Your task to perform on an android device: Go to Reddit.com Image 0: 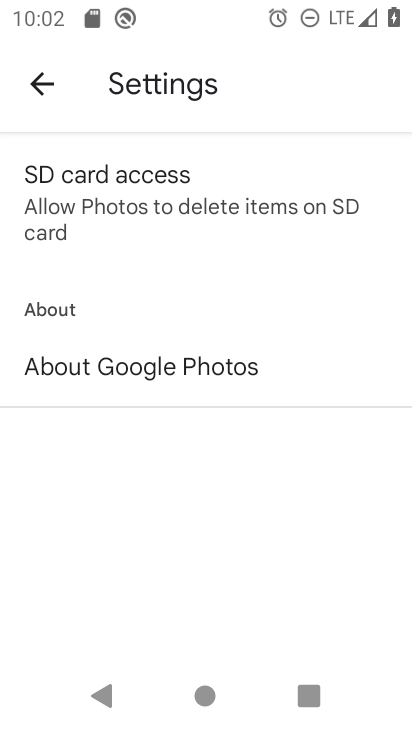
Step 0: press home button
Your task to perform on an android device: Go to Reddit.com Image 1: 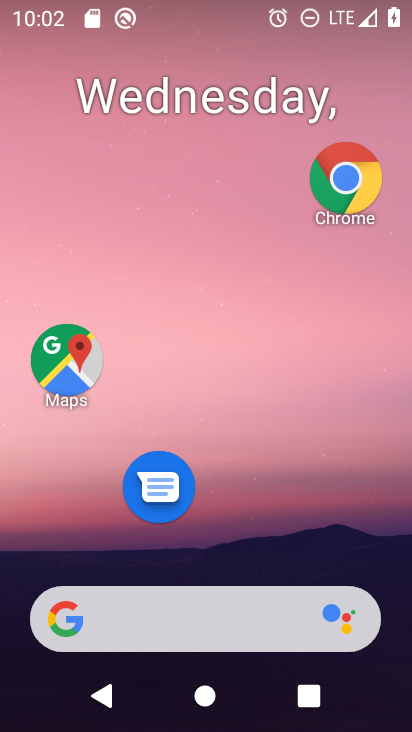
Step 1: drag from (206, 567) to (226, 62)
Your task to perform on an android device: Go to Reddit.com Image 2: 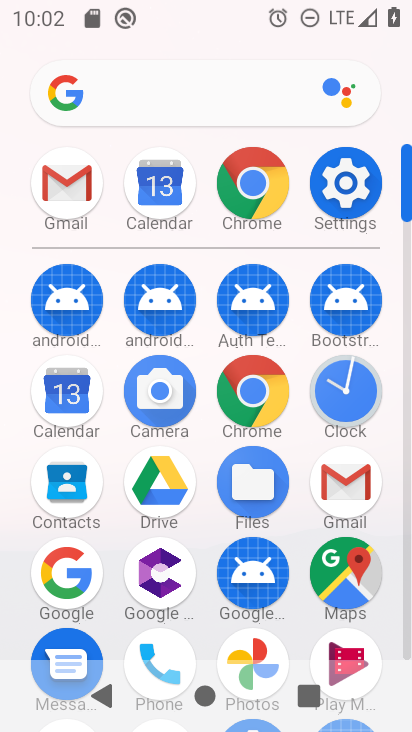
Step 2: click (259, 208)
Your task to perform on an android device: Go to Reddit.com Image 3: 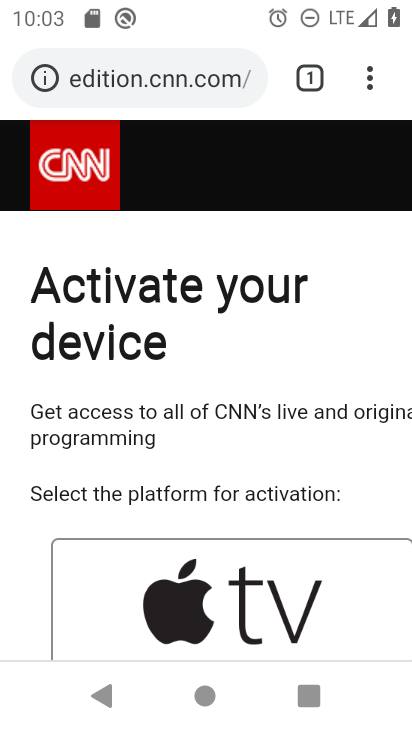
Step 3: click (217, 92)
Your task to perform on an android device: Go to Reddit.com Image 4: 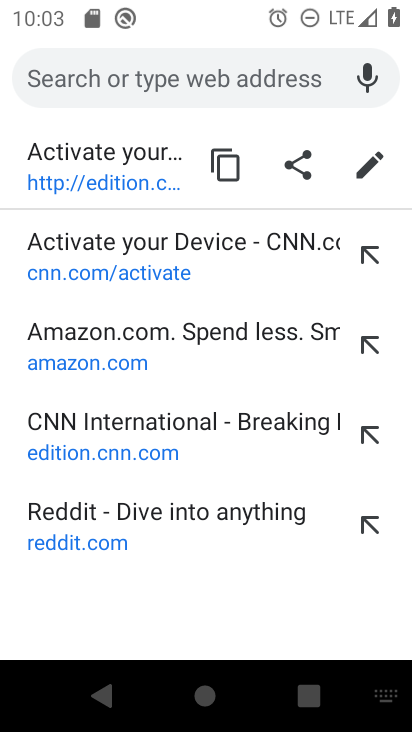
Step 4: click (264, 533)
Your task to perform on an android device: Go to Reddit.com Image 5: 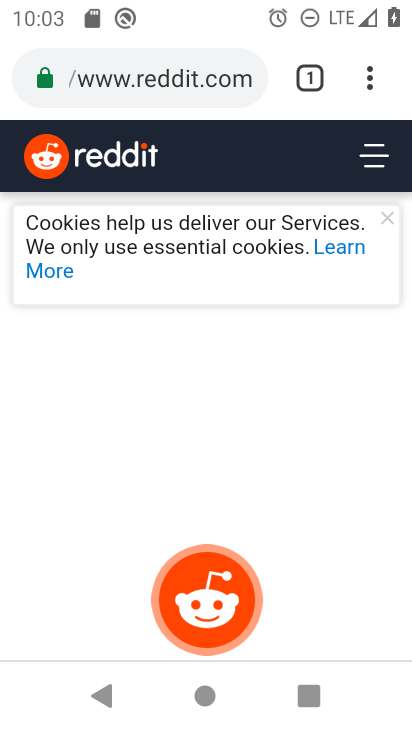
Step 5: task complete